Your task to perform on an android device: Open Chrome and go to settings Image 0: 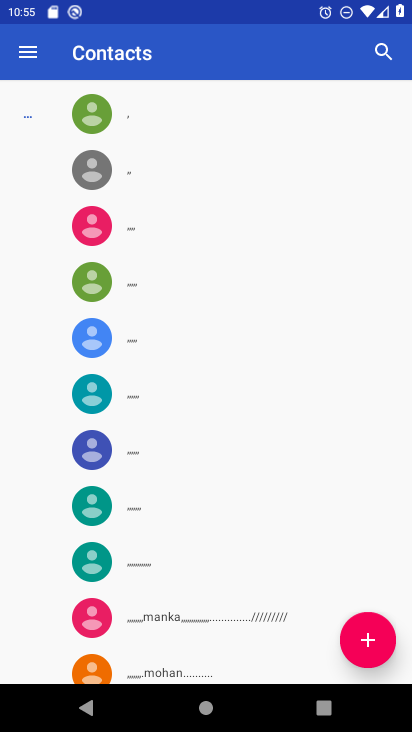
Step 0: press home button
Your task to perform on an android device: Open Chrome and go to settings Image 1: 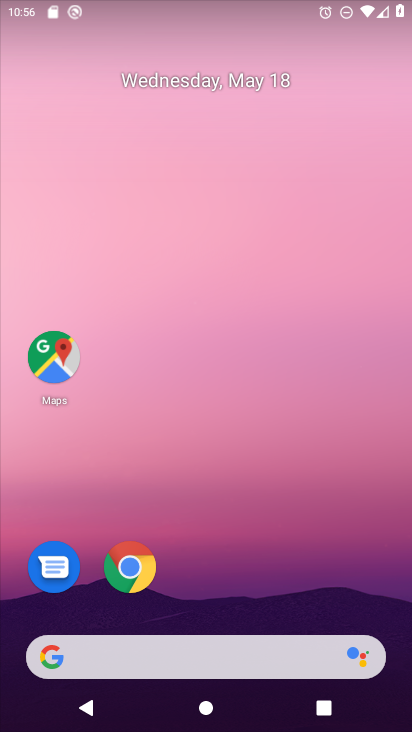
Step 1: drag from (254, 665) to (358, 149)
Your task to perform on an android device: Open Chrome and go to settings Image 2: 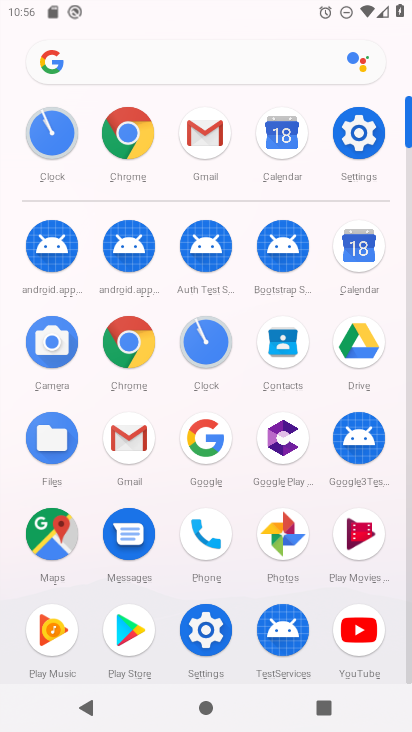
Step 2: click (122, 150)
Your task to perform on an android device: Open Chrome and go to settings Image 3: 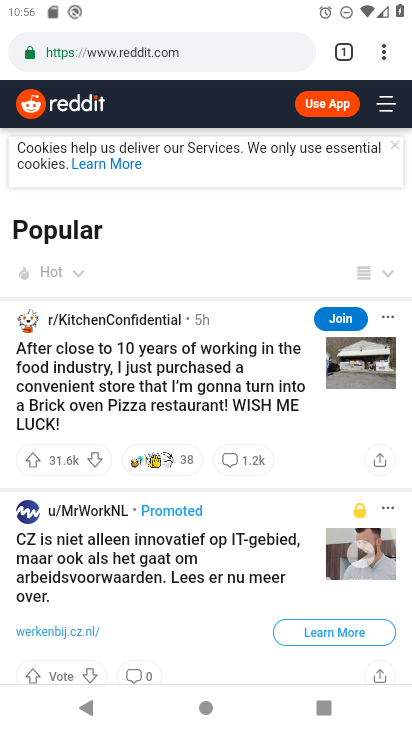
Step 3: click (369, 66)
Your task to perform on an android device: Open Chrome and go to settings Image 4: 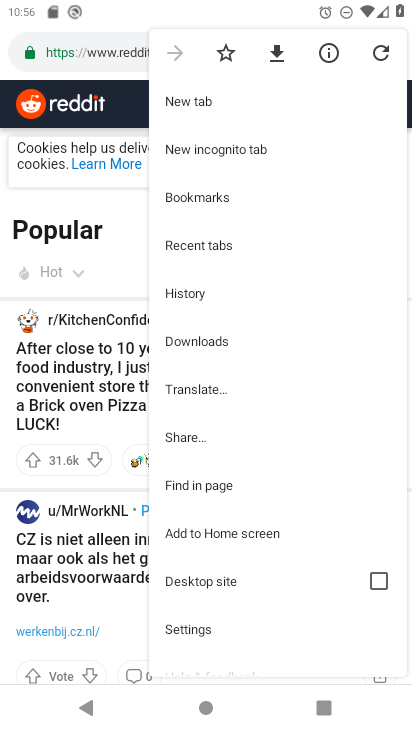
Step 4: click (190, 627)
Your task to perform on an android device: Open Chrome and go to settings Image 5: 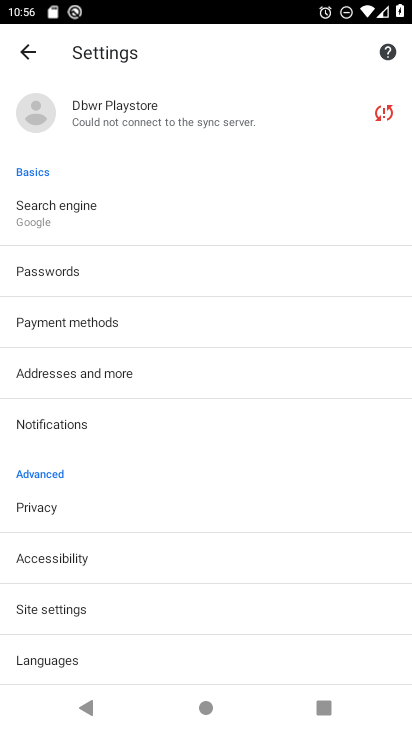
Step 5: task complete